Your task to perform on an android device: find which apps use the phone's location Image 0: 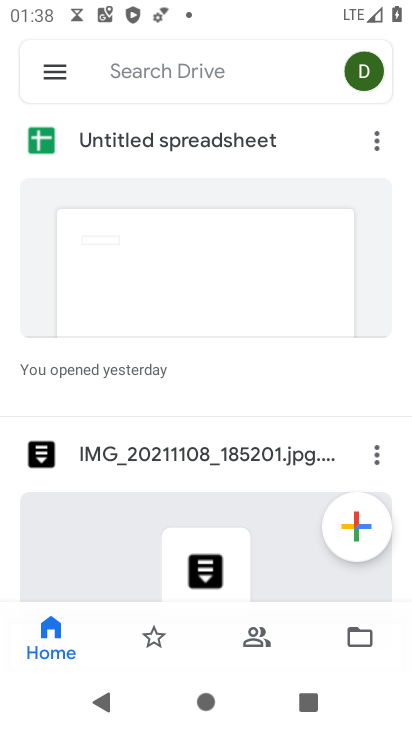
Step 0: click (53, 74)
Your task to perform on an android device: find which apps use the phone's location Image 1: 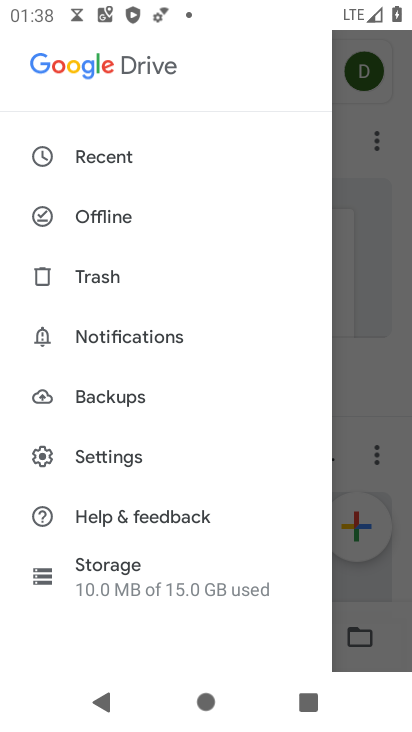
Step 1: press home button
Your task to perform on an android device: find which apps use the phone's location Image 2: 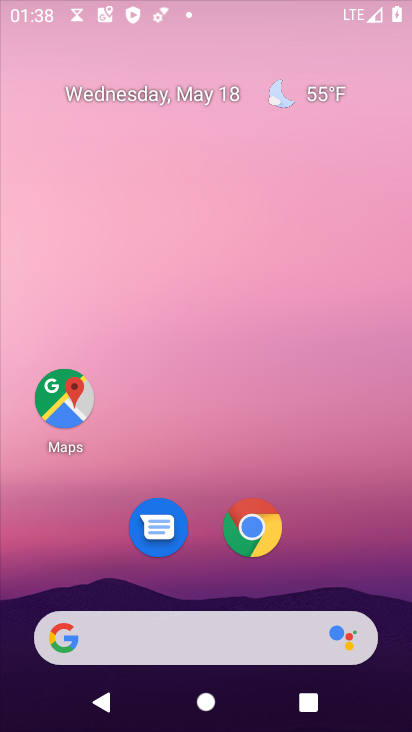
Step 2: drag from (263, 600) to (235, 29)
Your task to perform on an android device: find which apps use the phone's location Image 3: 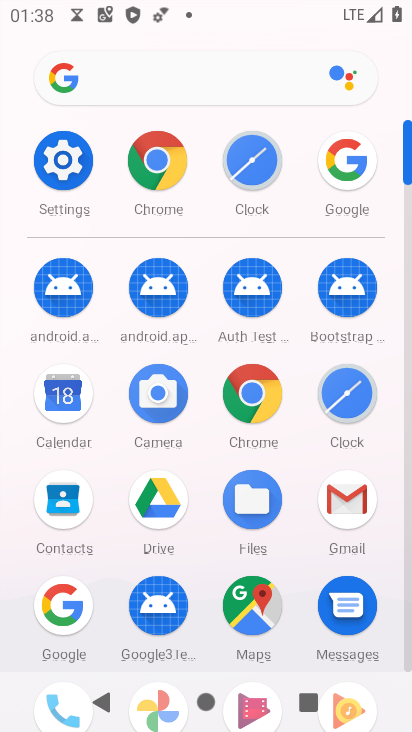
Step 3: click (71, 181)
Your task to perform on an android device: find which apps use the phone's location Image 4: 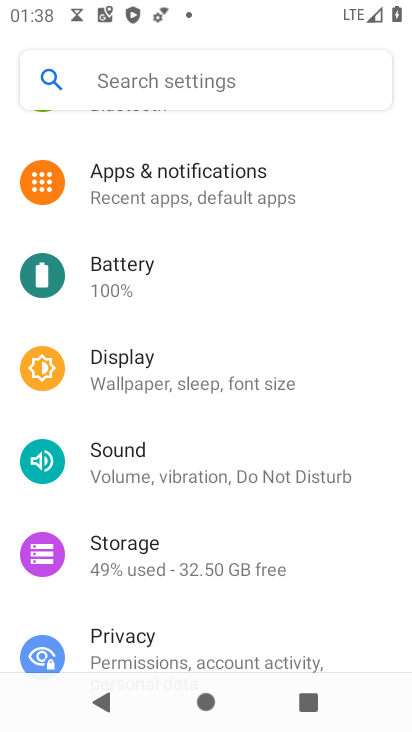
Step 4: drag from (186, 604) to (196, 247)
Your task to perform on an android device: find which apps use the phone's location Image 5: 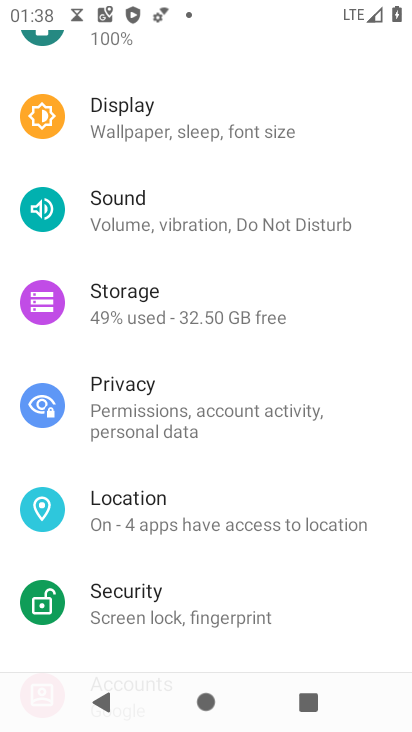
Step 5: click (172, 519)
Your task to perform on an android device: find which apps use the phone's location Image 6: 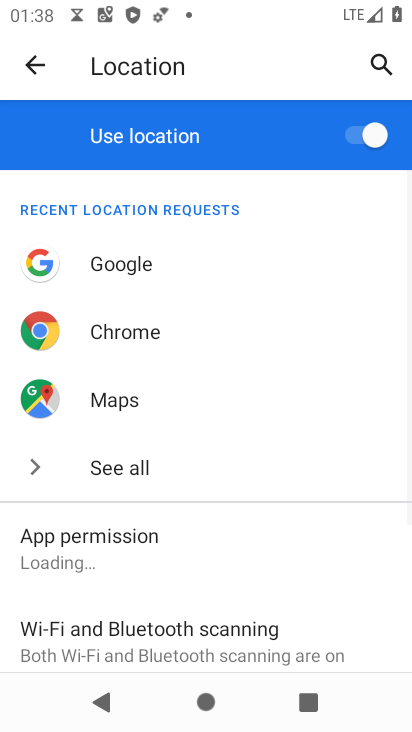
Step 6: click (154, 535)
Your task to perform on an android device: find which apps use the phone's location Image 7: 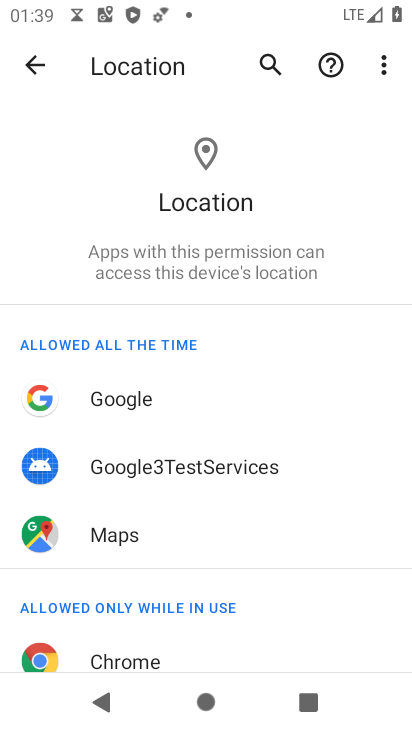
Step 7: task complete